Your task to perform on an android device: Go to notification settings Image 0: 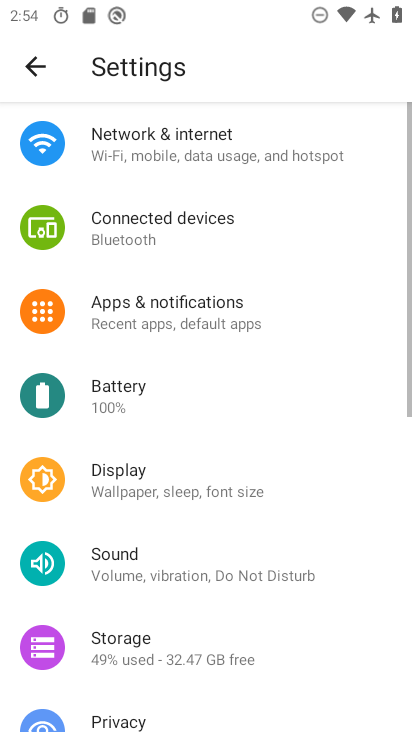
Step 0: press home button
Your task to perform on an android device: Go to notification settings Image 1: 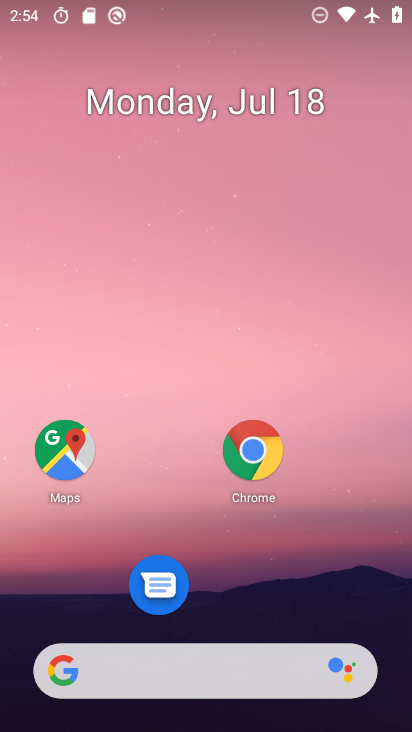
Step 1: drag from (197, 677) to (273, 204)
Your task to perform on an android device: Go to notification settings Image 2: 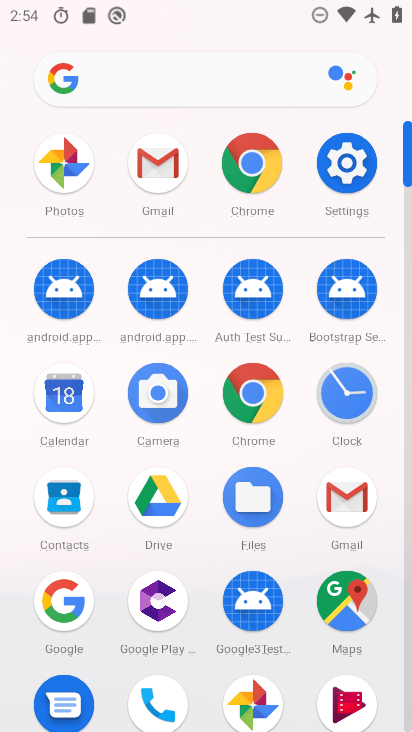
Step 2: click (337, 166)
Your task to perform on an android device: Go to notification settings Image 3: 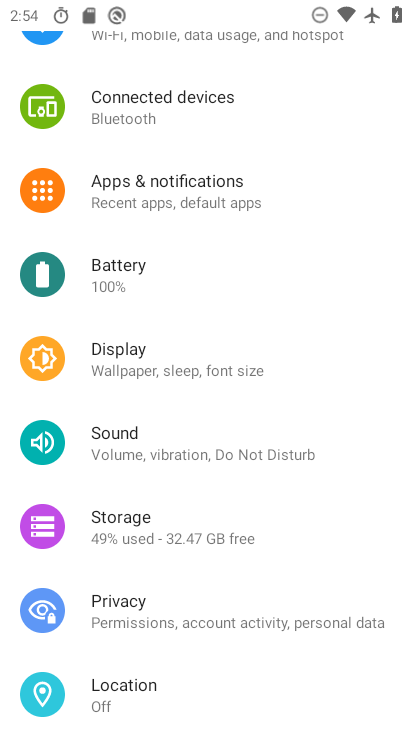
Step 3: click (179, 188)
Your task to perform on an android device: Go to notification settings Image 4: 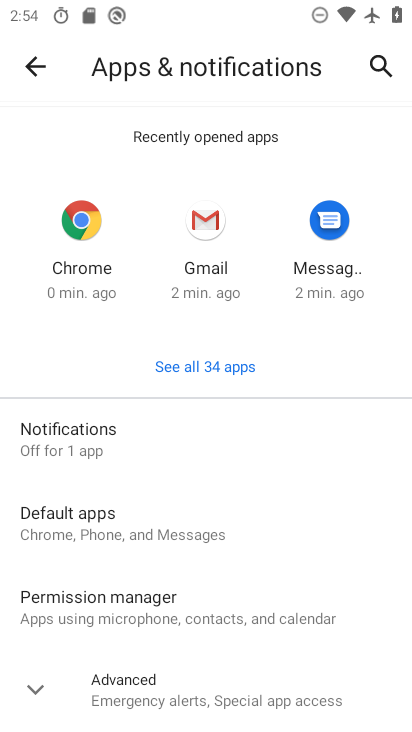
Step 4: click (89, 446)
Your task to perform on an android device: Go to notification settings Image 5: 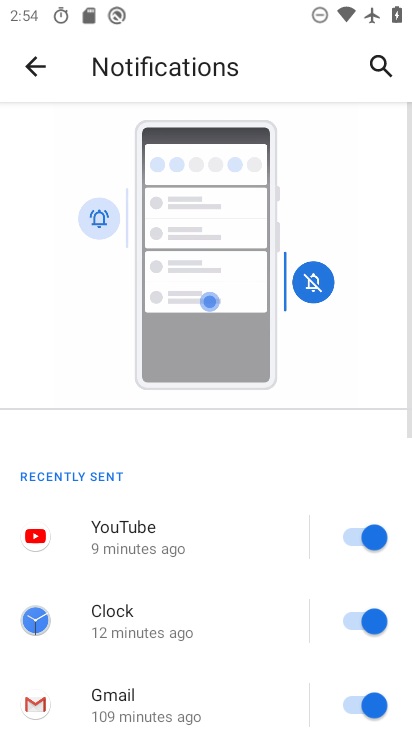
Step 5: task complete